Your task to perform on an android device: uninstall "Google Calendar" Image 0: 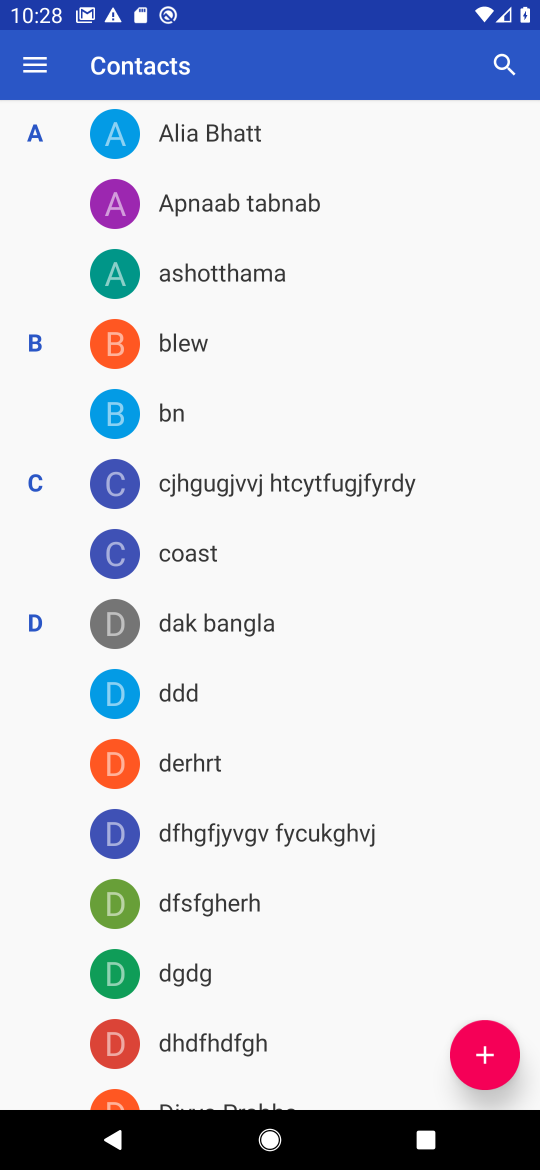
Step 0: press back button
Your task to perform on an android device: uninstall "Google Calendar" Image 1: 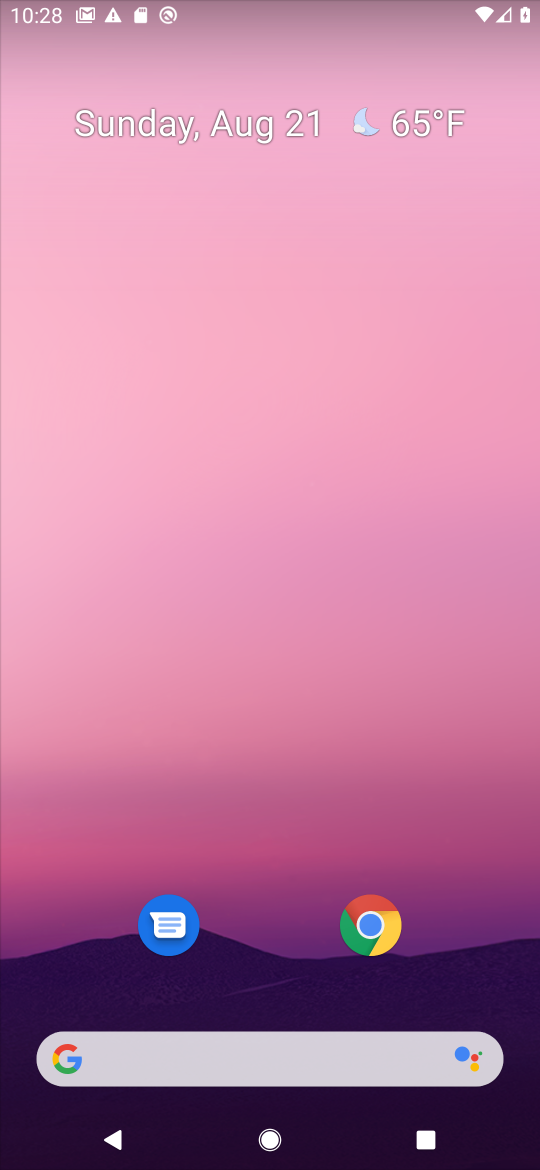
Step 1: drag from (226, 939) to (358, 75)
Your task to perform on an android device: uninstall "Google Calendar" Image 2: 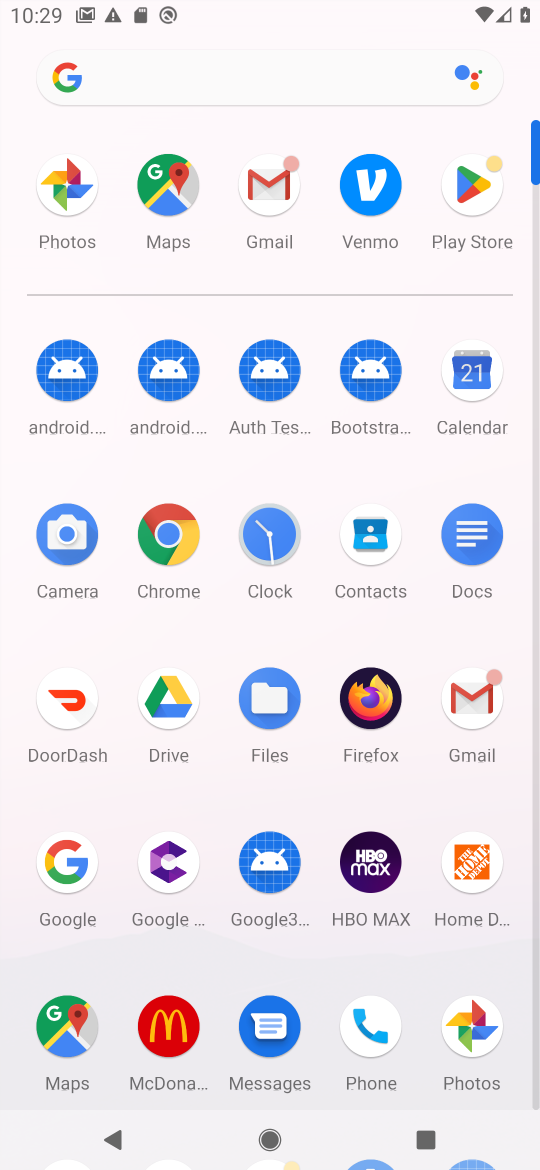
Step 2: click (475, 350)
Your task to perform on an android device: uninstall "Google Calendar" Image 3: 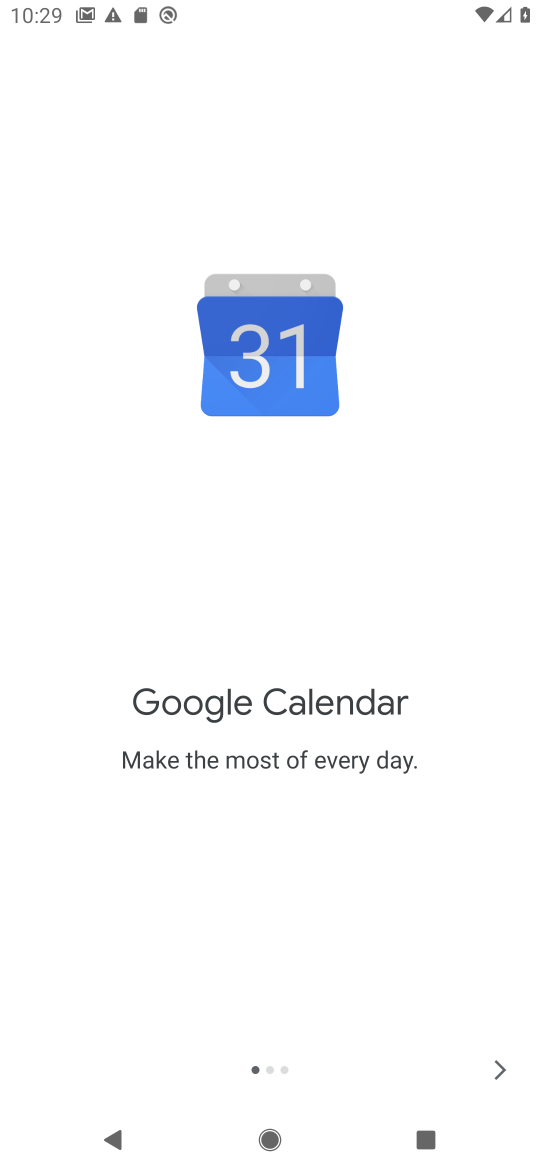
Step 3: click (490, 1063)
Your task to perform on an android device: uninstall "Google Calendar" Image 4: 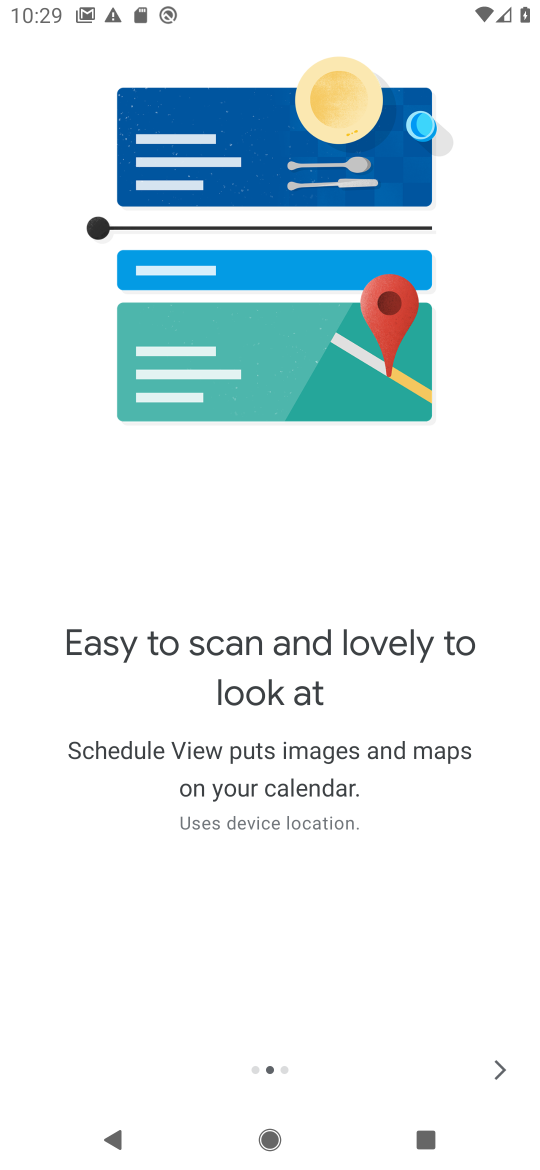
Step 4: click (429, 1038)
Your task to perform on an android device: uninstall "Google Calendar" Image 5: 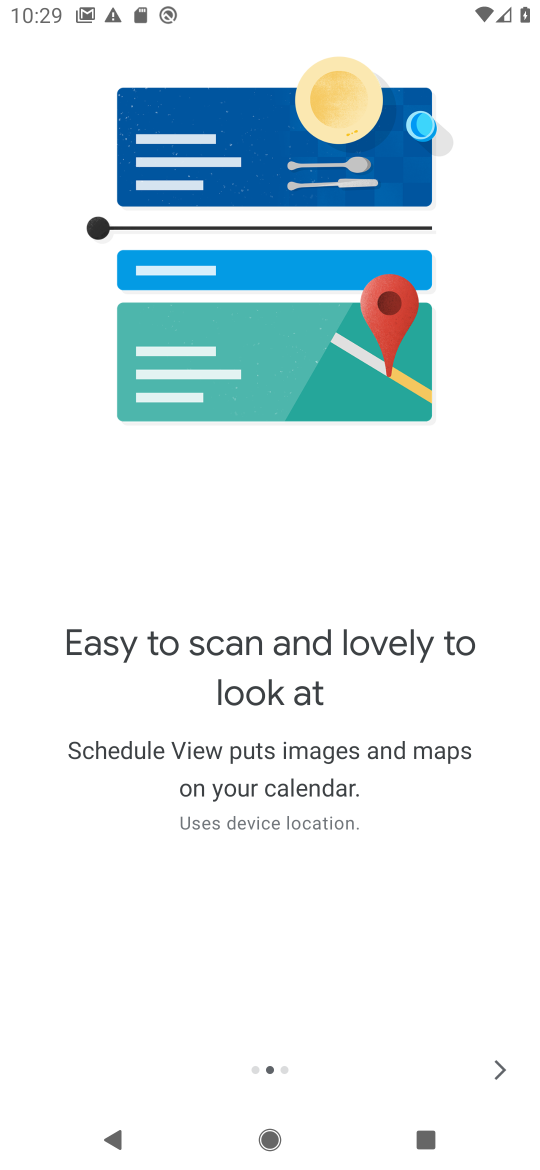
Step 5: click (520, 1052)
Your task to perform on an android device: uninstall "Google Calendar" Image 6: 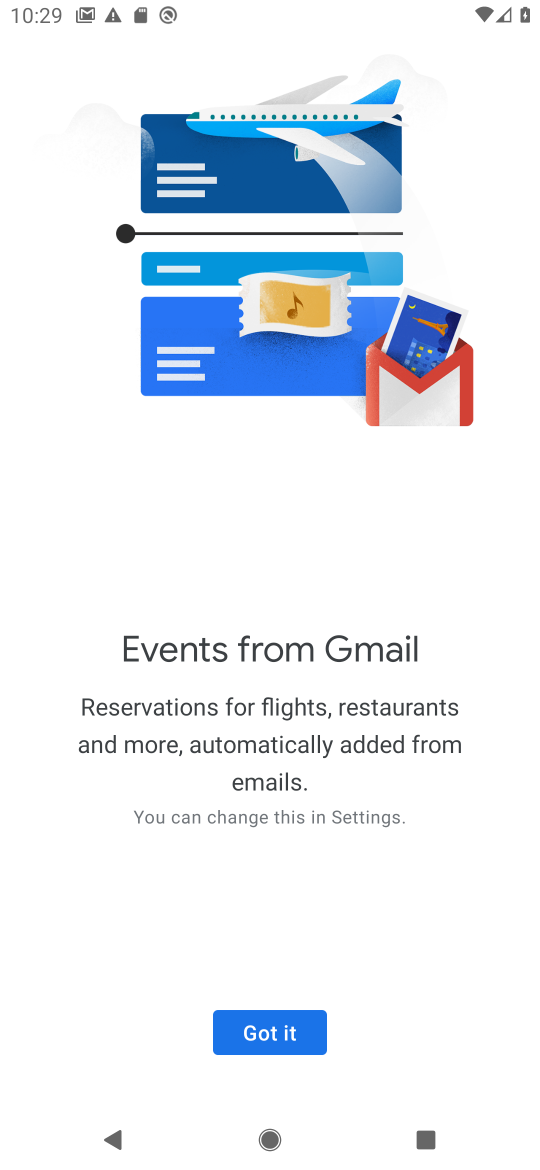
Step 6: click (260, 1019)
Your task to perform on an android device: uninstall "Google Calendar" Image 7: 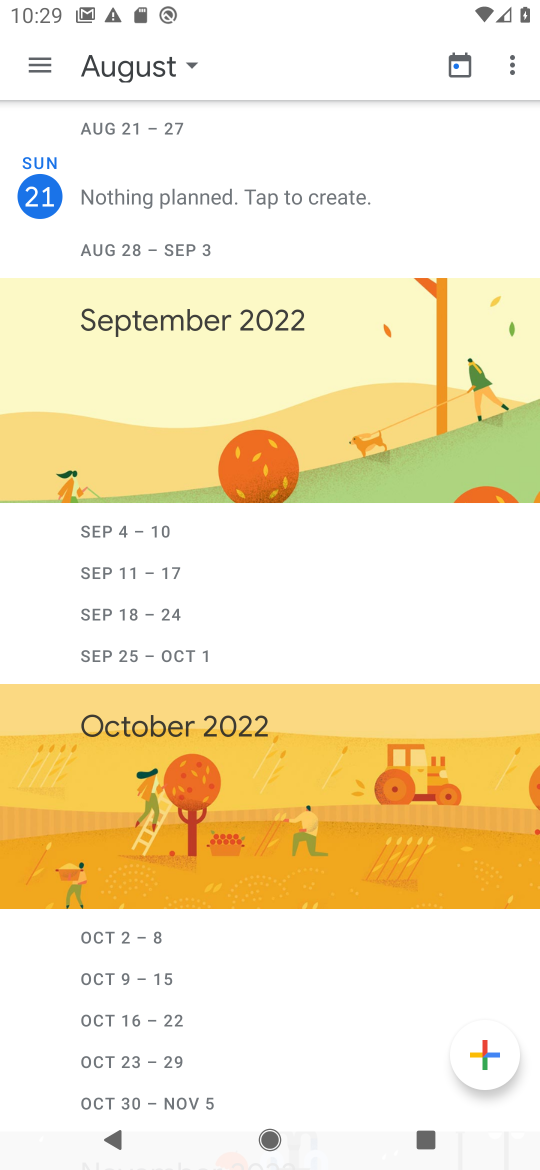
Step 7: press back button
Your task to perform on an android device: uninstall "Google Calendar" Image 8: 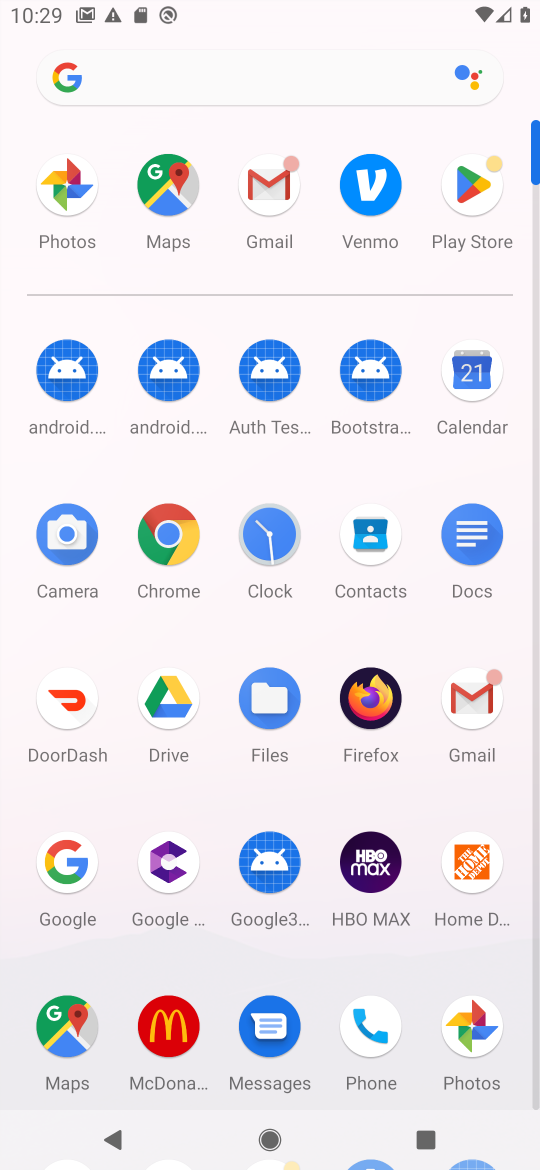
Step 8: click (482, 190)
Your task to perform on an android device: uninstall "Google Calendar" Image 9: 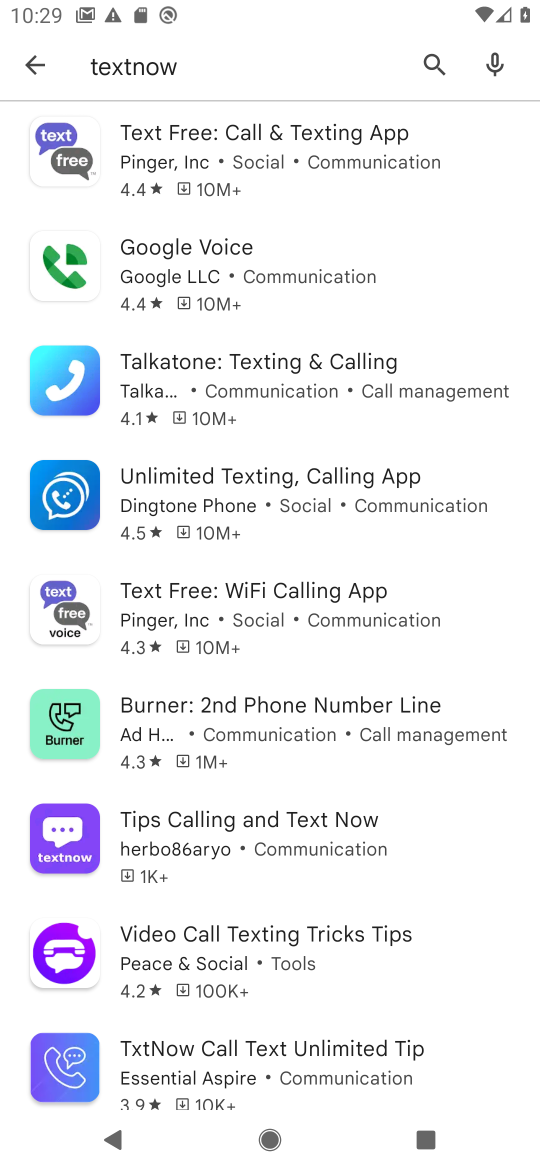
Step 9: click (427, 55)
Your task to perform on an android device: uninstall "Google Calendar" Image 10: 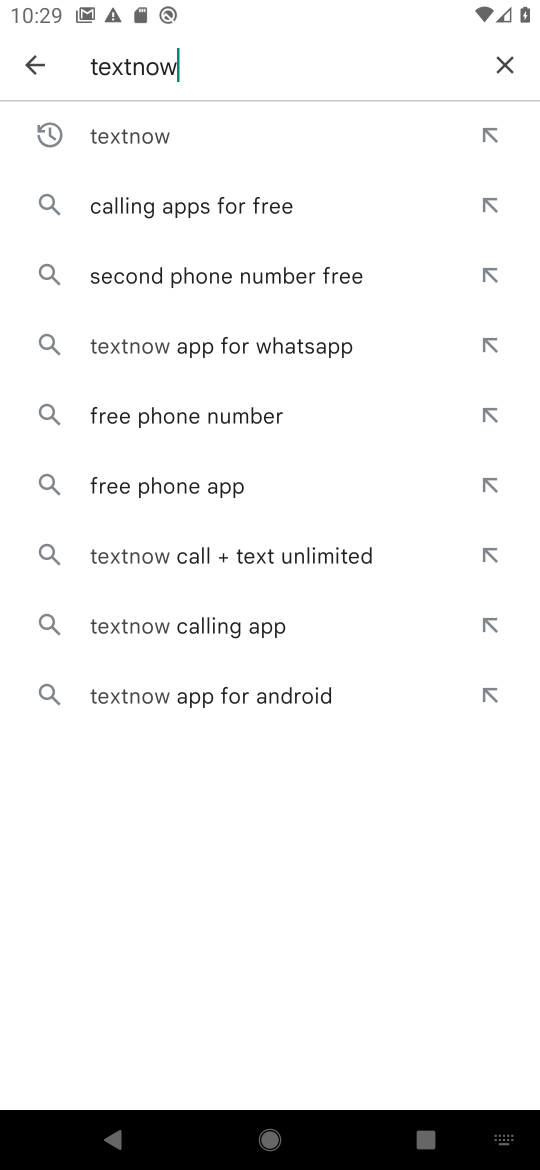
Step 10: click (507, 62)
Your task to perform on an android device: uninstall "Google Calendar" Image 11: 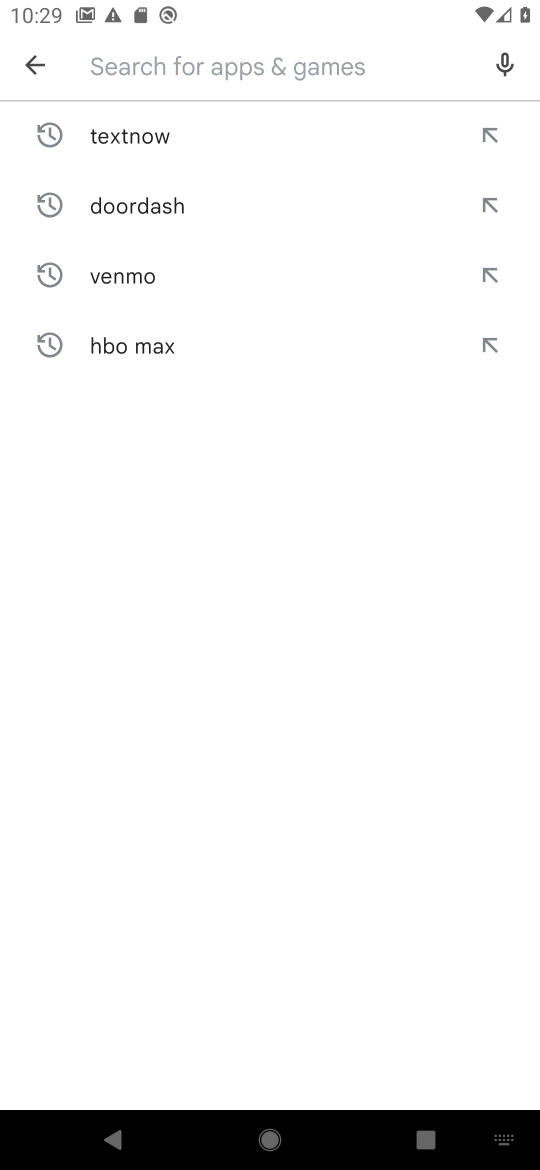
Step 11: click (222, 57)
Your task to perform on an android device: uninstall "Google Calendar" Image 12: 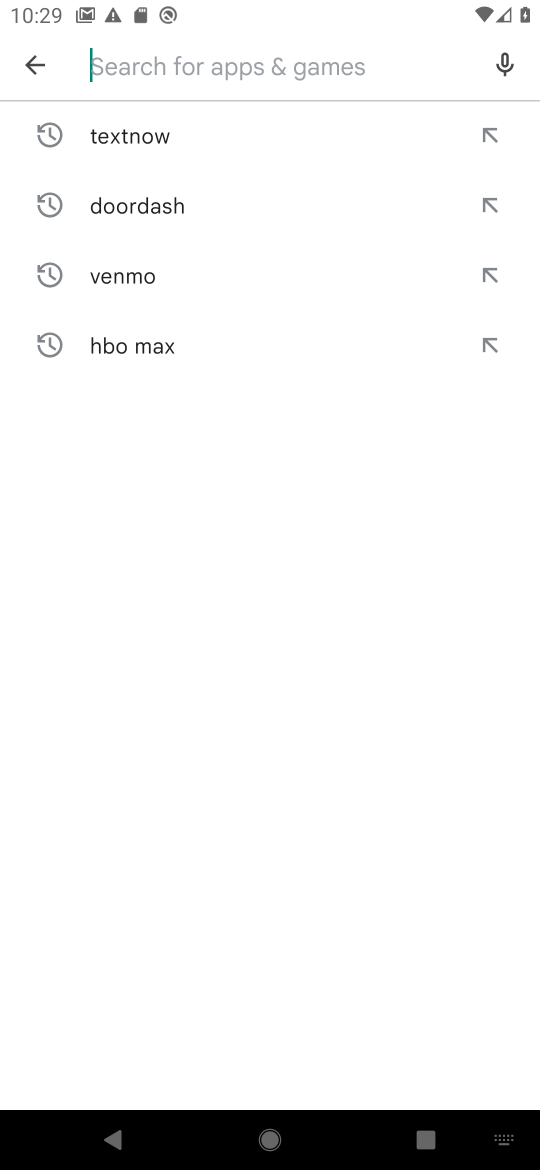
Step 12: type "Google Calendar"
Your task to perform on an android device: uninstall "Google Calendar" Image 13: 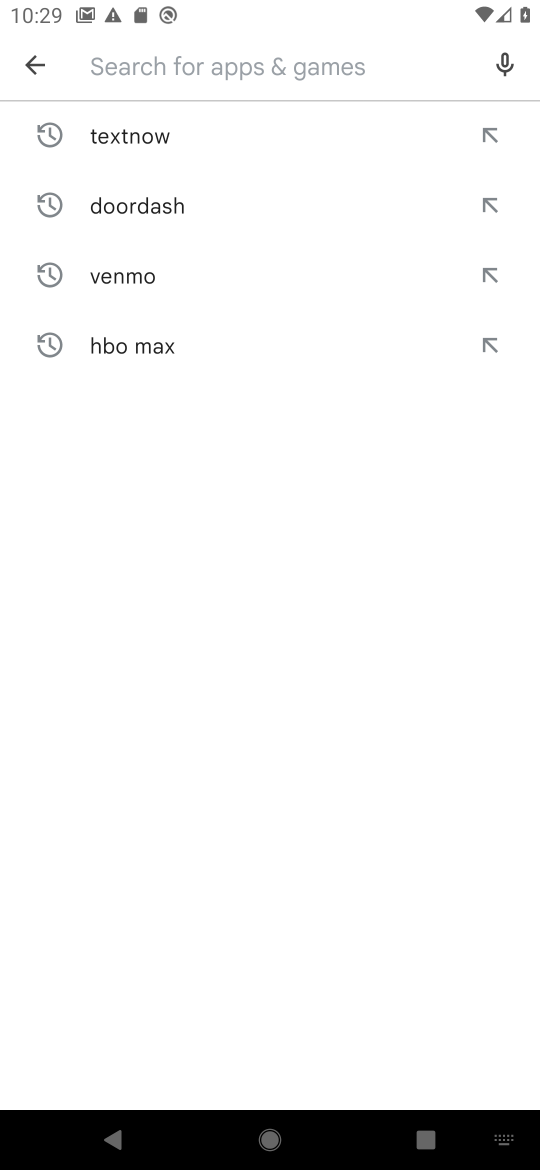
Step 13: click (218, 733)
Your task to perform on an android device: uninstall "Google Calendar" Image 14: 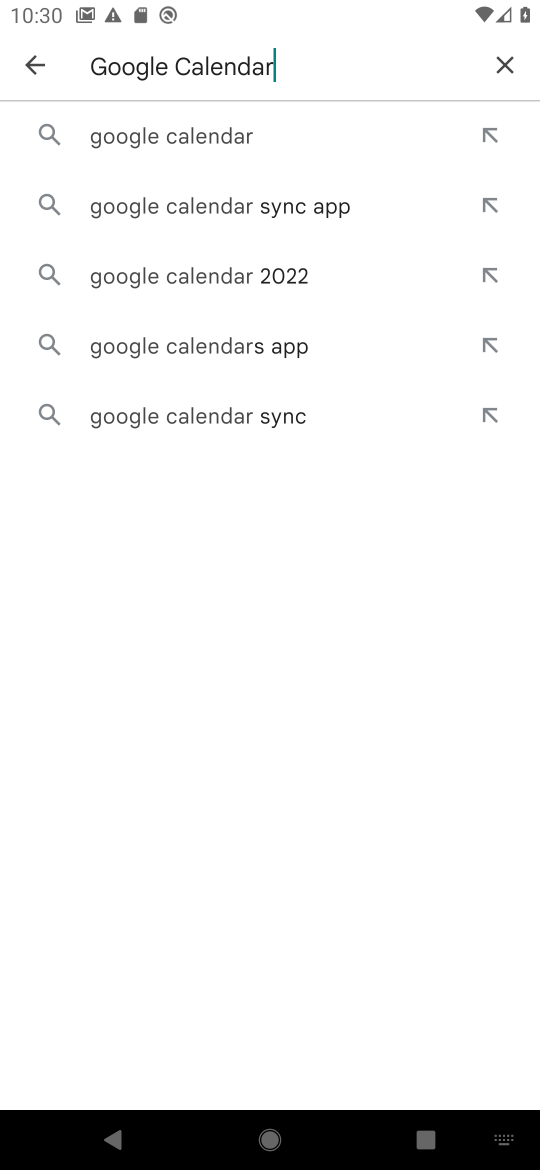
Step 14: click (202, 154)
Your task to perform on an android device: uninstall "Google Calendar" Image 15: 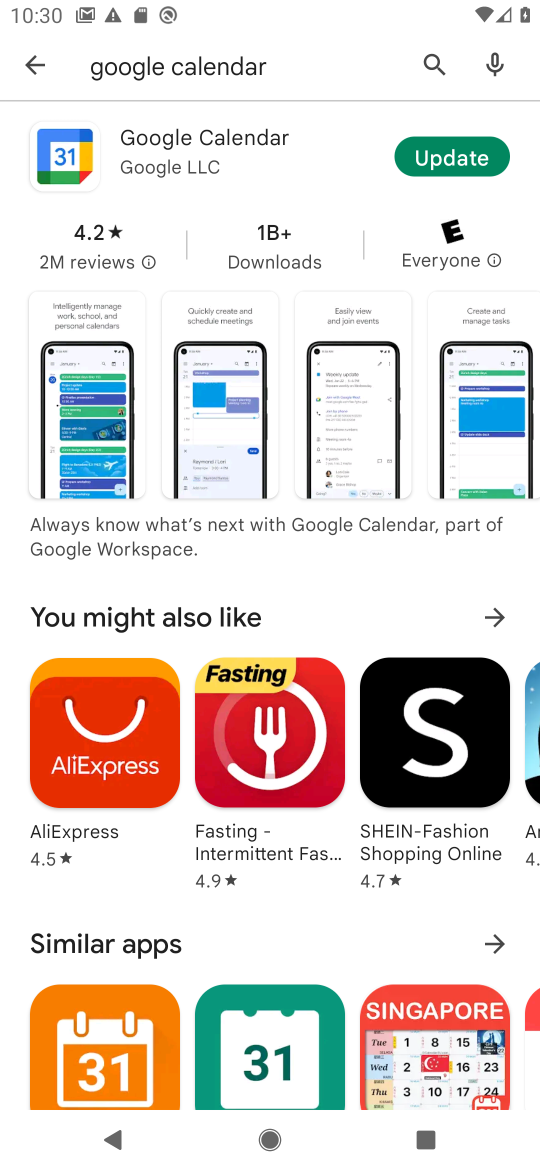
Step 15: click (183, 153)
Your task to perform on an android device: uninstall "Google Calendar" Image 16: 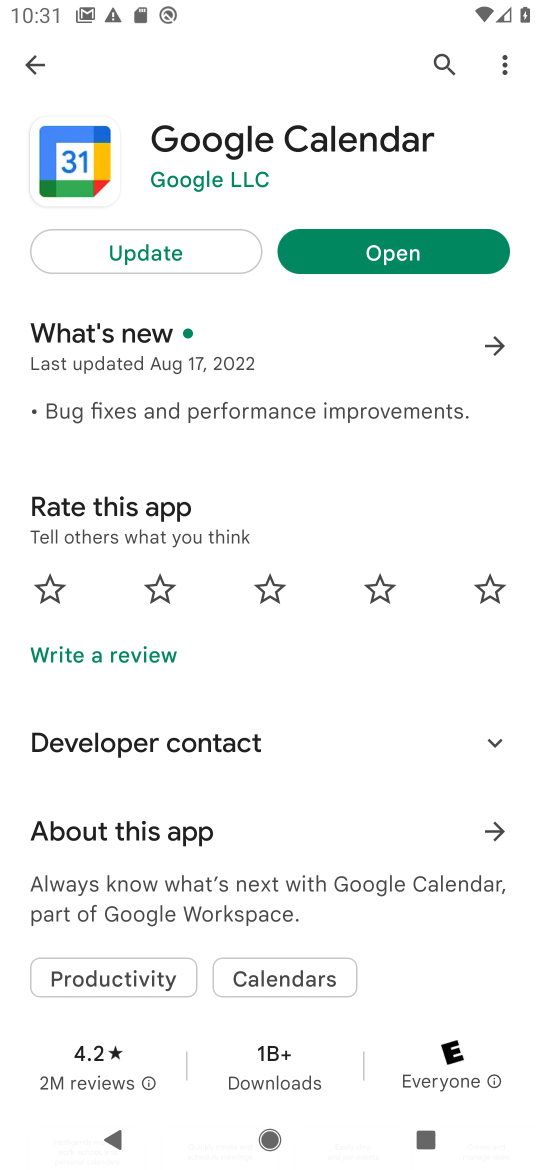
Step 16: task complete